Your task to perform on an android device: Go to battery settings Image 0: 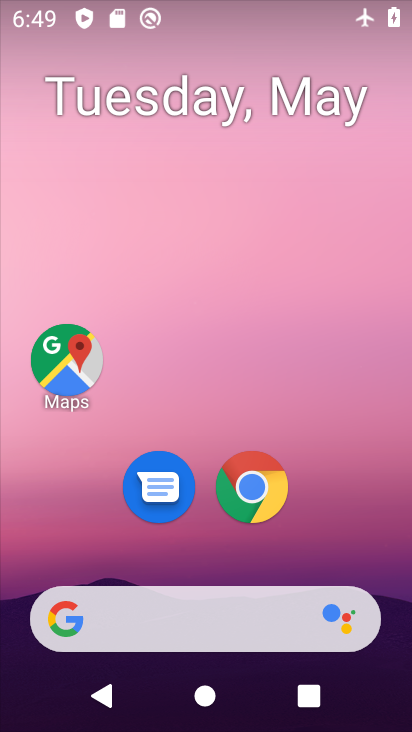
Step 0: drag from (338, 525) to (223, 16)
Your task to perform on an android device: Go to battery settings Image 1: 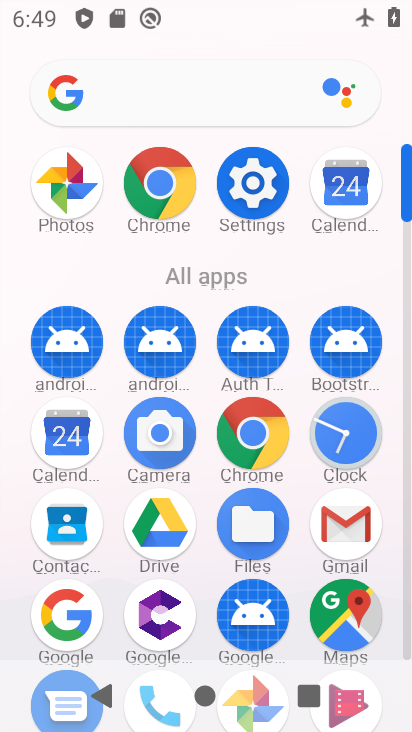
Step 1: click (252, 198)
Your task to perform on an android device: Go to battery settings Image 2: 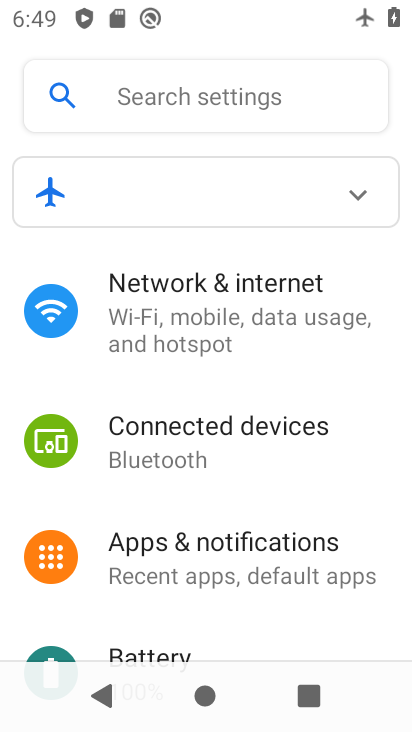
Step 2: click (150, 641)
Your task to perform on an android device: Go to battery settings Image 3: 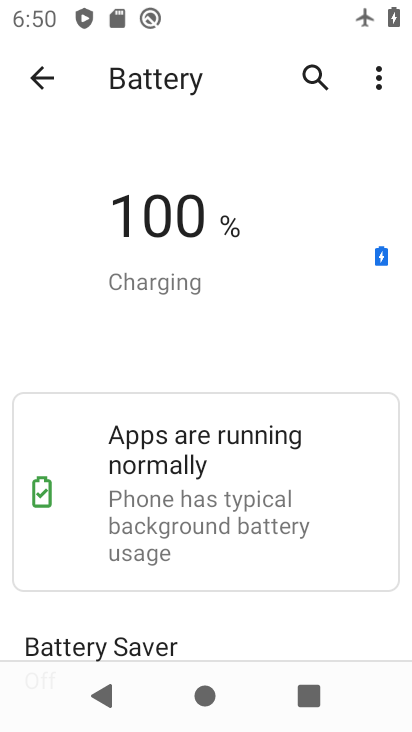
Step 3: task complete